Your task to perform on an android device: make emails show in primary in the gmail app Image 0: 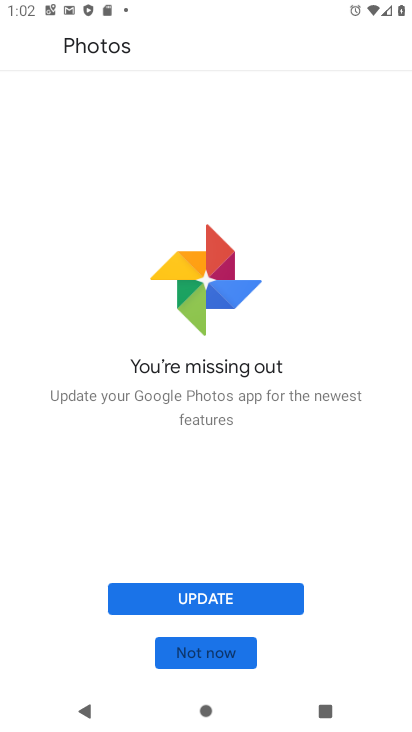
Step 0: press home button
Your task to perform on an android device: make emails show in primary in the gmail app Image 1: 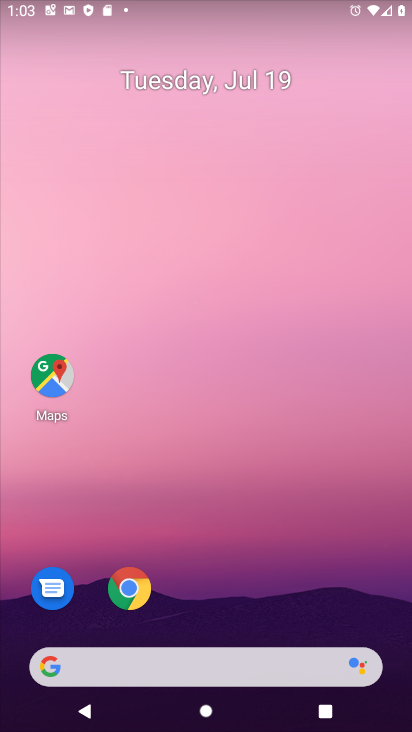
Step 1: drag from (290, 487) to (214, 72)
Your task to perform on an android device: make emails show in primary in the gmail app Image 2: 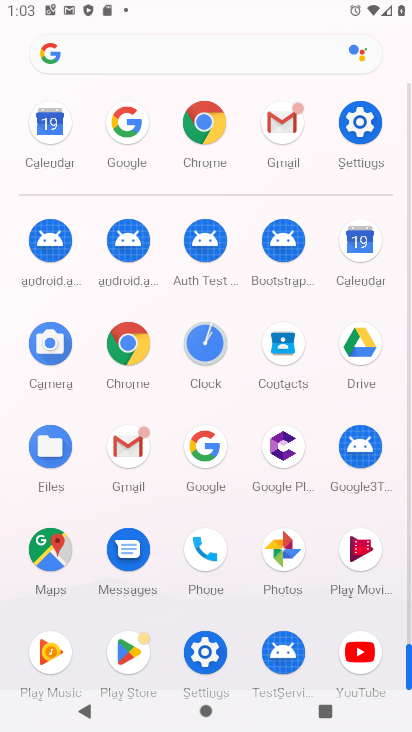
Step 2: click (125, 437)
Your task to perform on an android device: make emails show in primary in the gmail app Image 3: 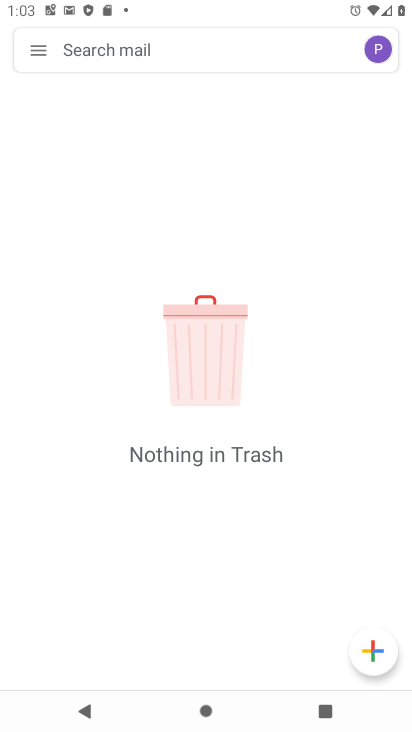
Step 3: task complete